Your task to perform on an android device: turn on the 12-hour format for clock Image 0: 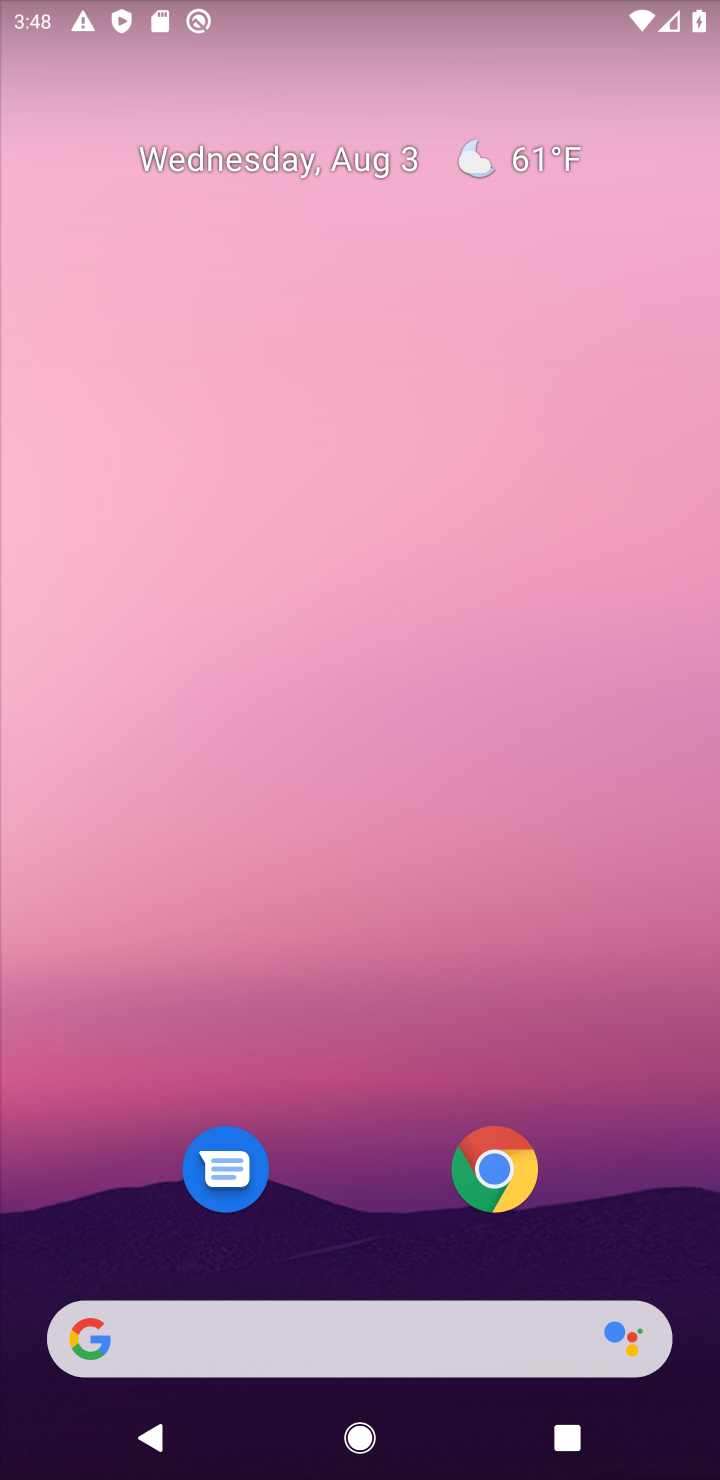
Step 0: drag from (358, 1236) to (261, 39)
Your task to perform on an android device: turn on the 12-hour format for clock Image 1: 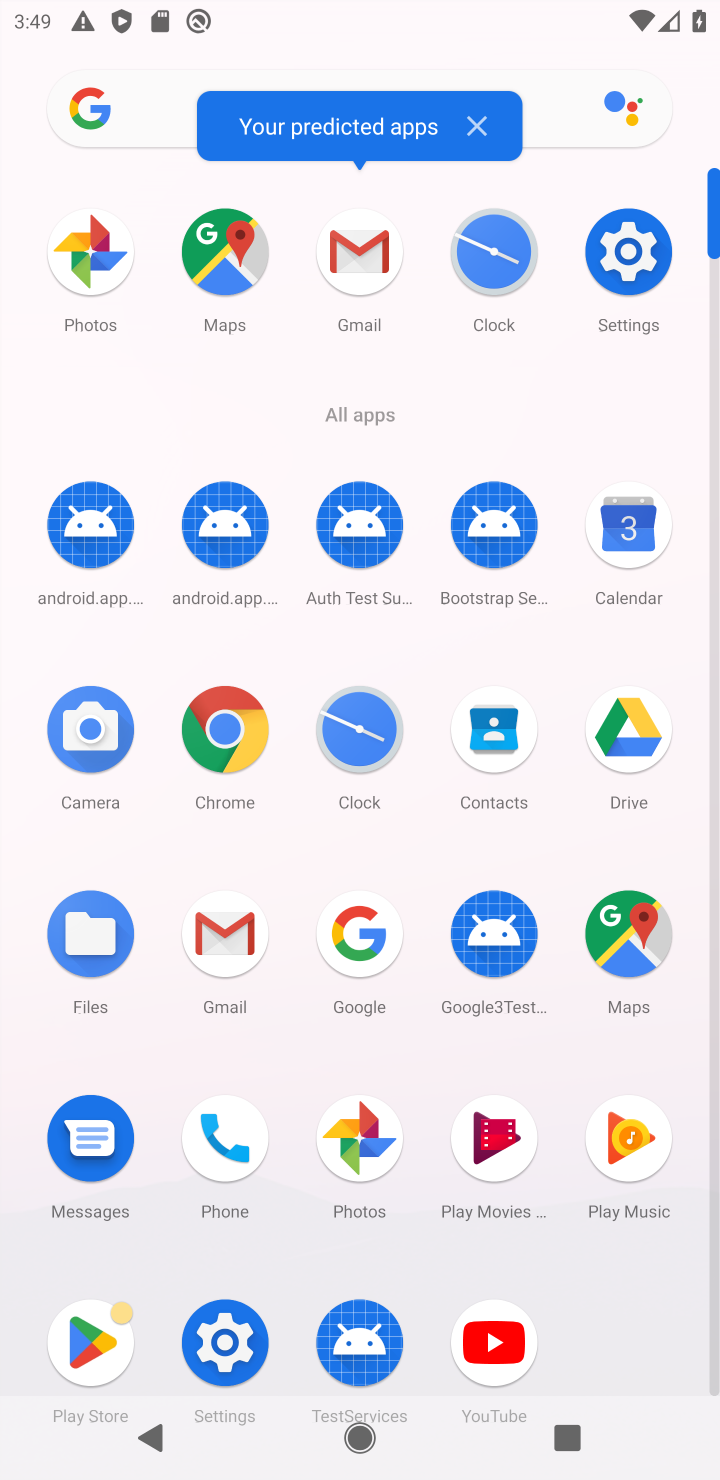
Step 1: click (228, 1345)
Your task to perform on an android device: turn on the 12-hour format for clock Image 2: 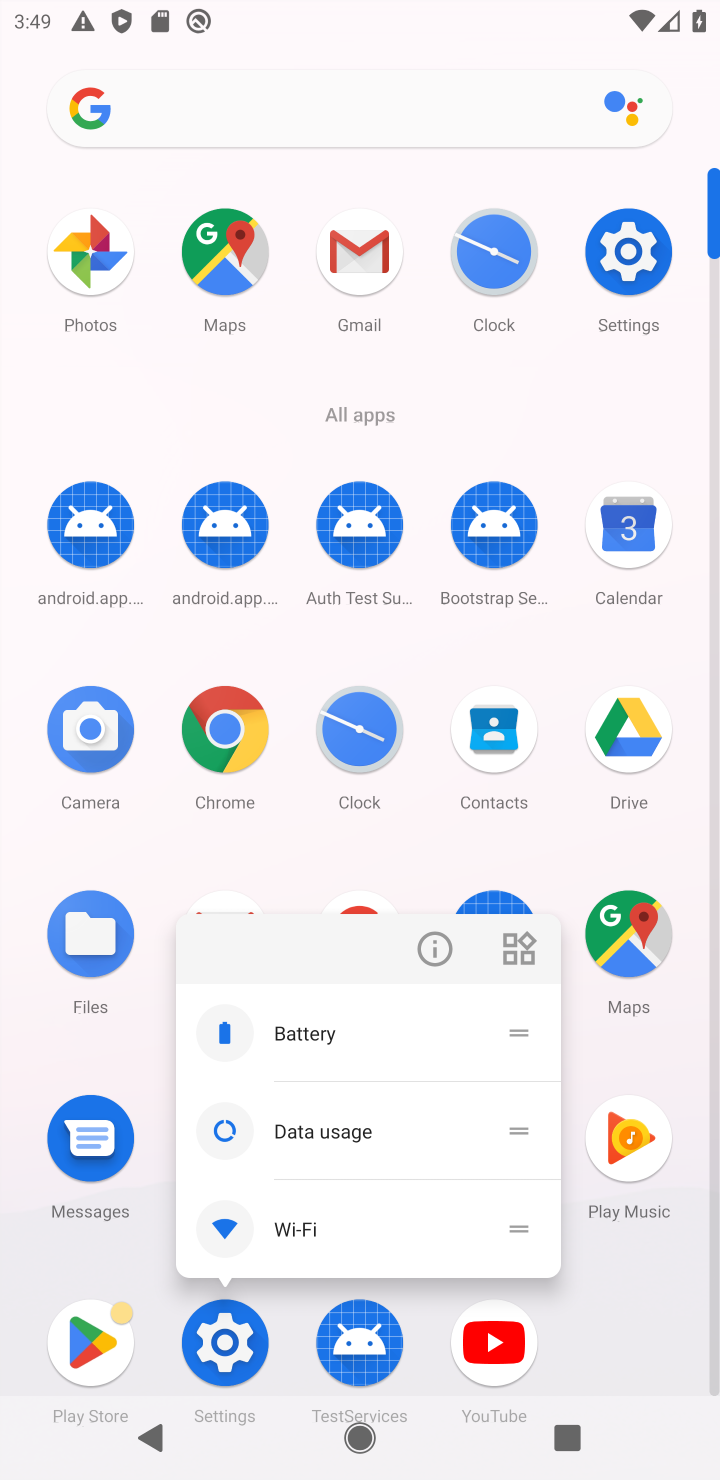
Step 2: click (226, 1345)
Your task to perform on an android device: turn on the 12-hour format for clock Image 3: 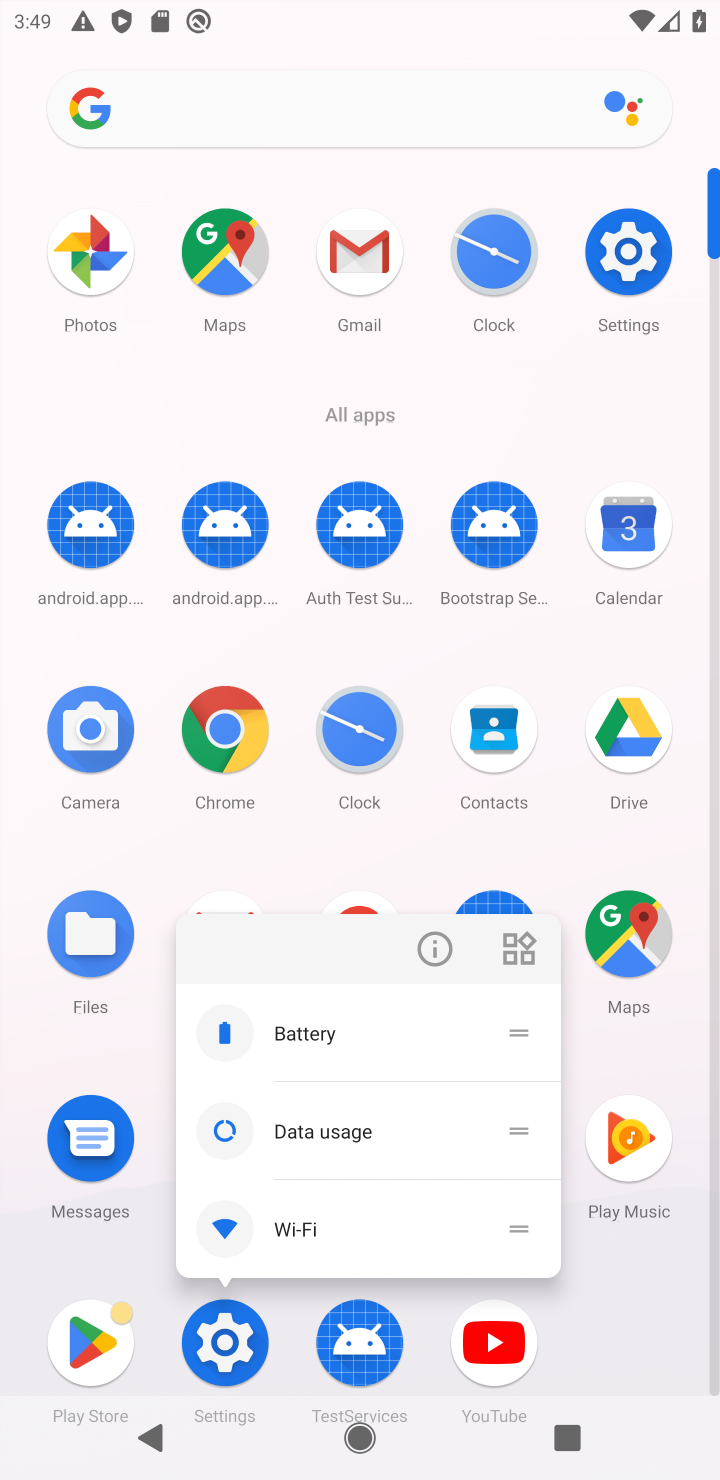
Step 3: click (222, 1349)
Your task to perform on an android device: turn on the 12-hour format for clock Image 4: 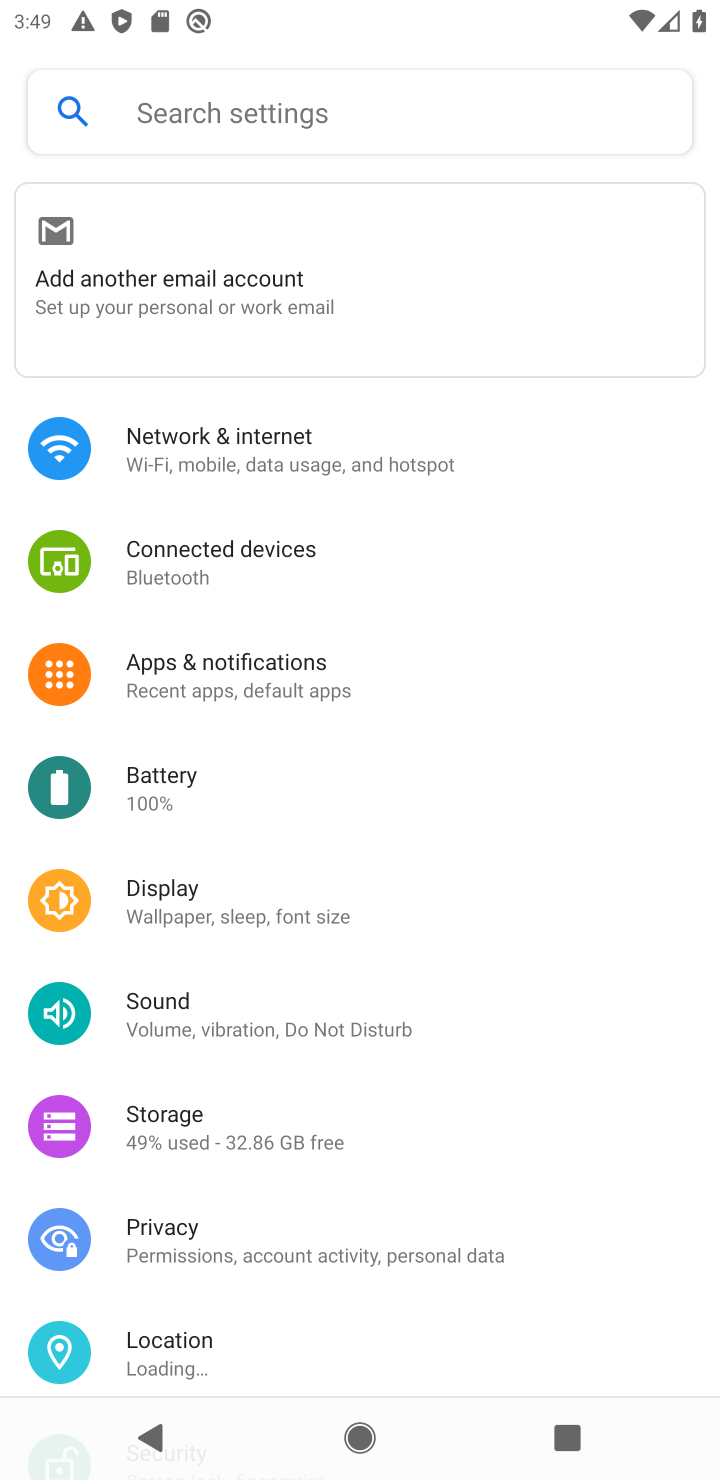
Step 4: drag from (305, 1233) to (300, 622)
Your task to perform on an android device: turn on the 12-hour format for clock Image 5: 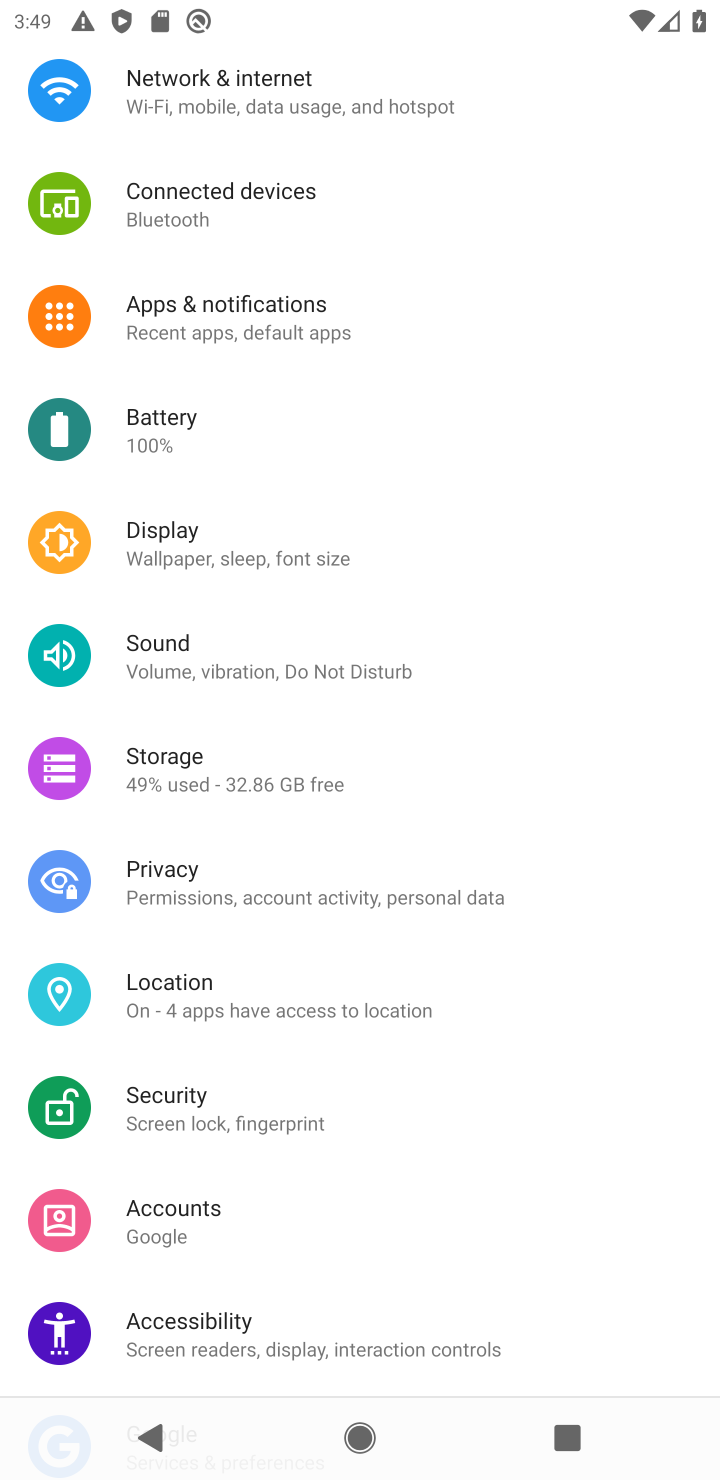
Step 5: drag from (233, 1234) to (255, 549)
Your task to perform on an android device: turn on the 12-hour format for clock Image 6: 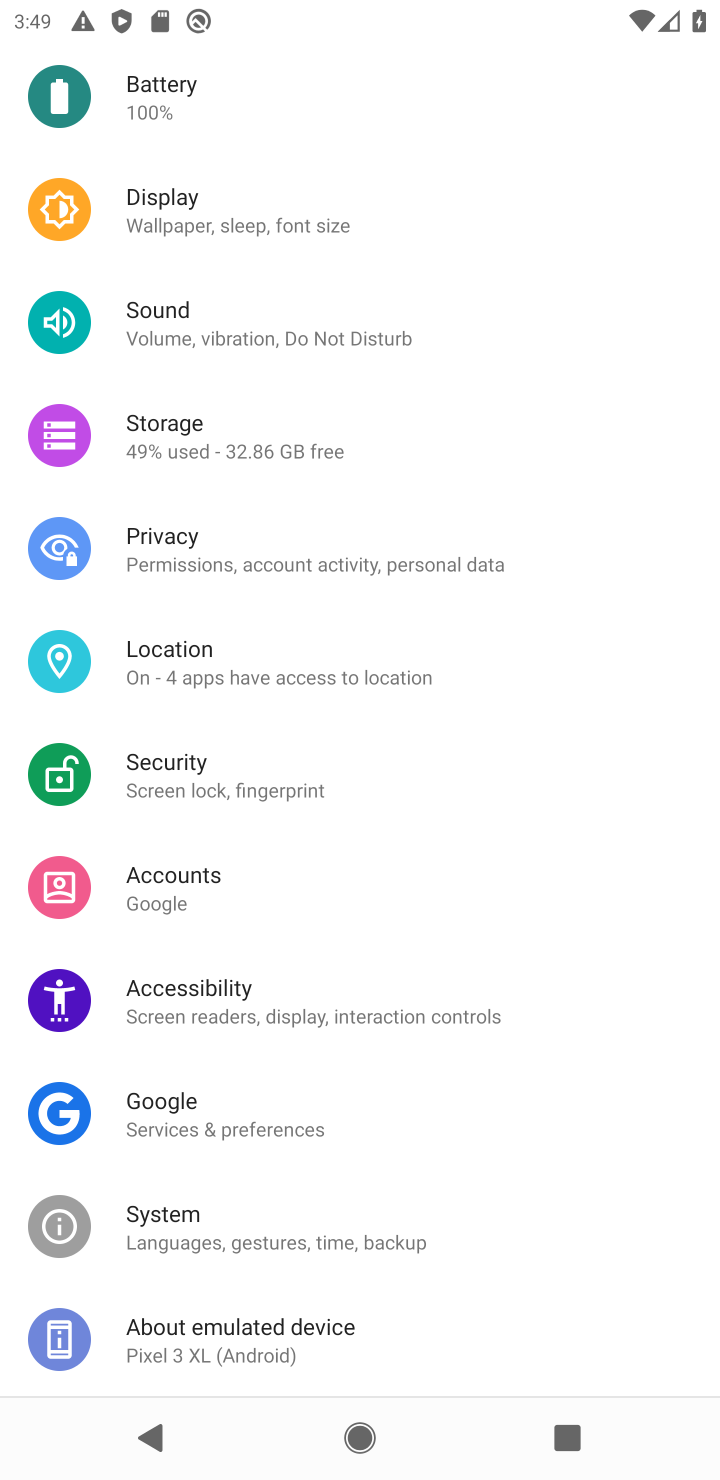
Step 6: click (217, 1244)
Your task to perform on an android device: turn on the 12-hour format for clock Image 7: 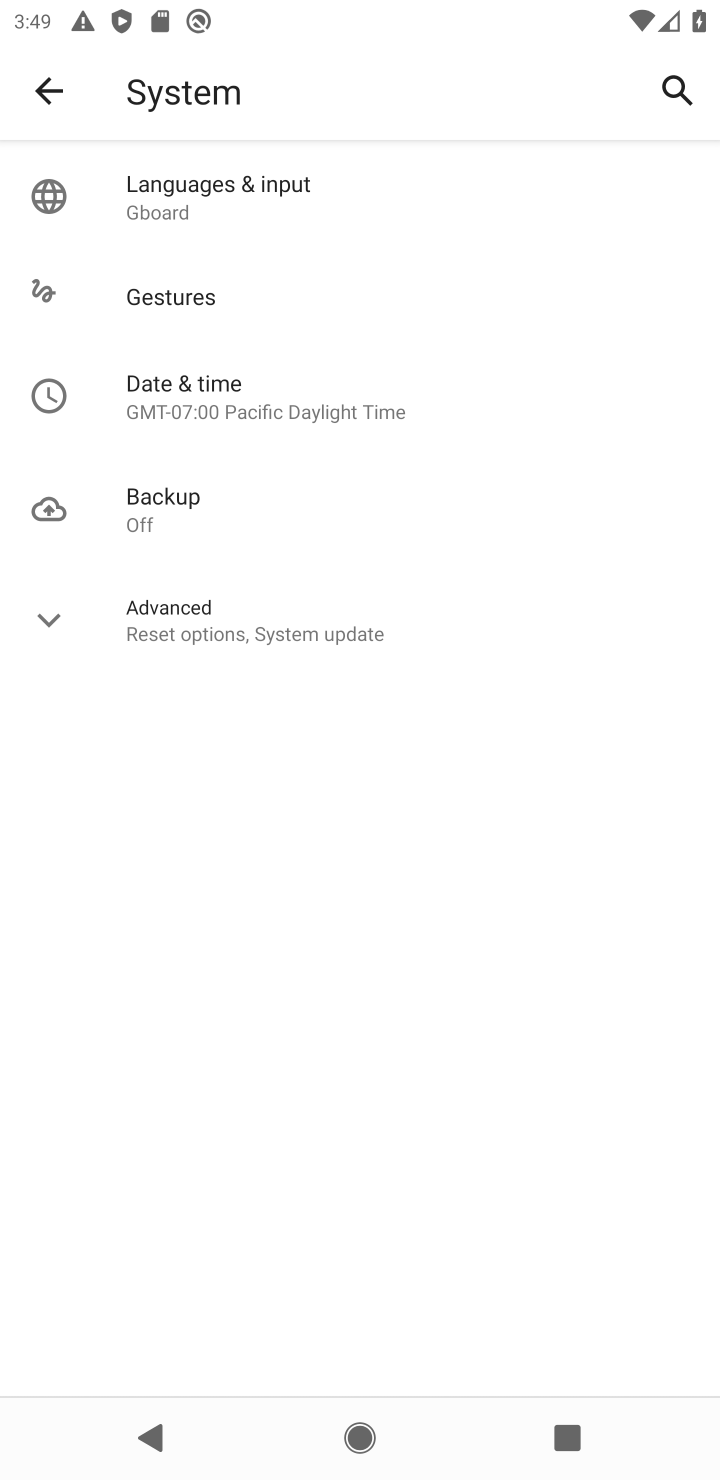
Step 7: click (311, 384)
Your task to perform on an android device: turn on the 12-hour format for clock Image 8: 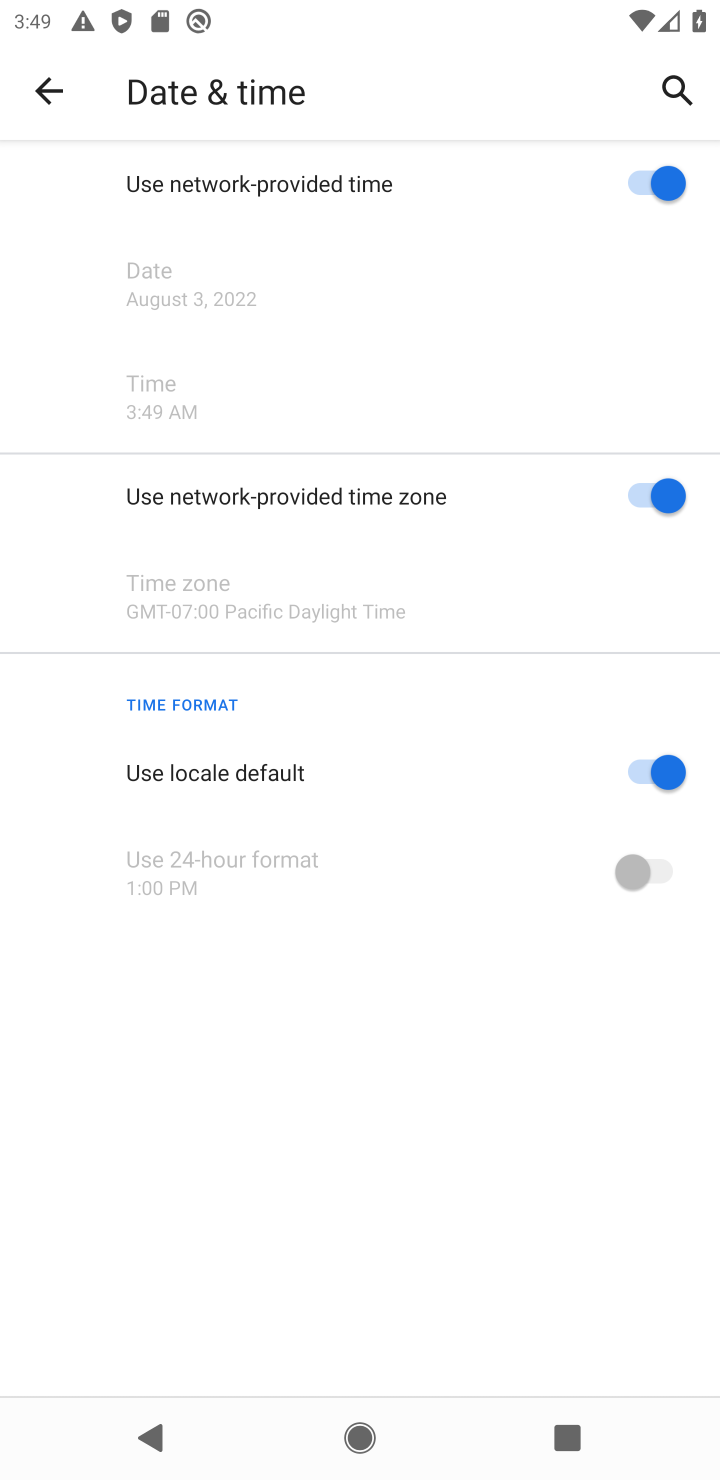
Step 8: task complete